Your task to perform on an android device: Go to Reddit.com Image 0: 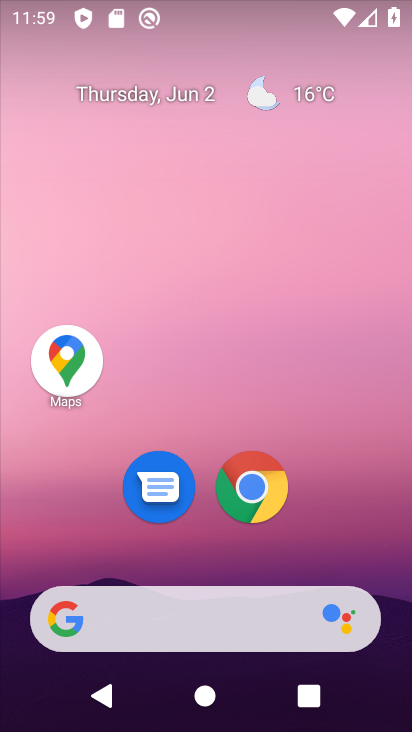
Step 0: press home button
Your task to perform on an android device: Go to Reddit.com Image 1: 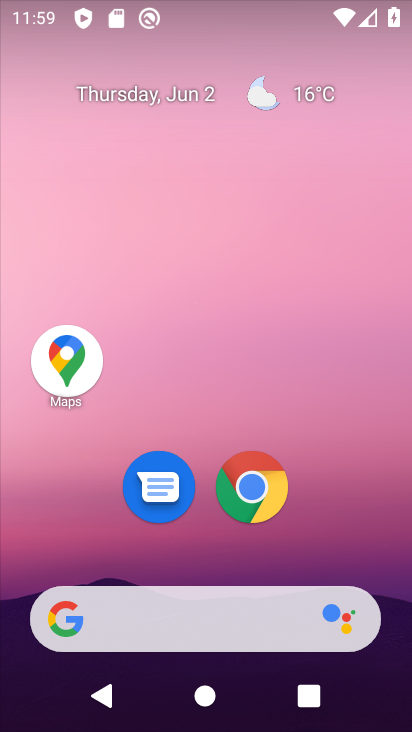
Step 1: click (117, 618)
Your task to perform on an android device: Go to Reddit.com Image 2: 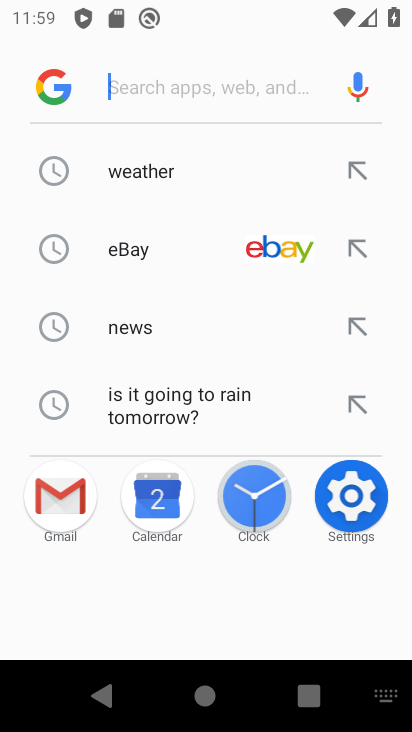
Step 2: type "Reddit.com"
Your task to perform on an android device: Go to Reddit.com Image 3: 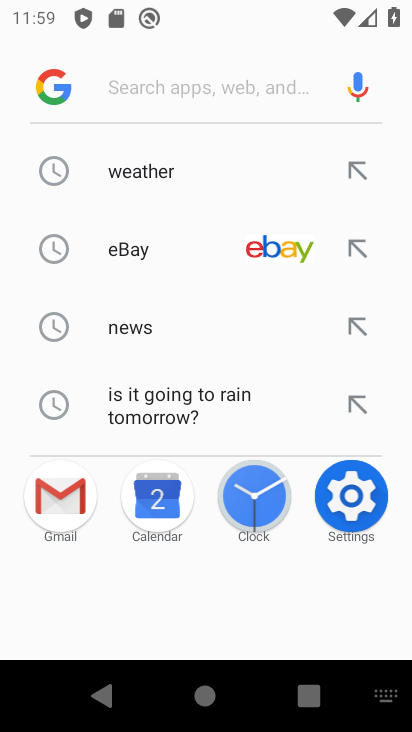
Step 3: click (162, 95)
Your task to perform on an android device: Go to Reddit.com Image 4: 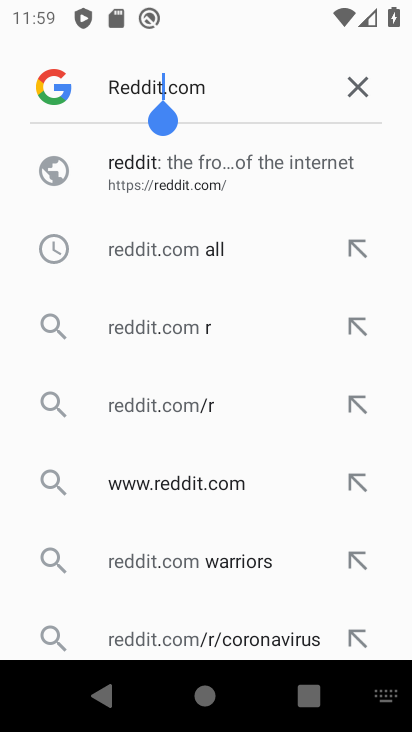
Step 4: click (221, 166)
Your task to perform on an android device: Go to Reddit.com Image 5: 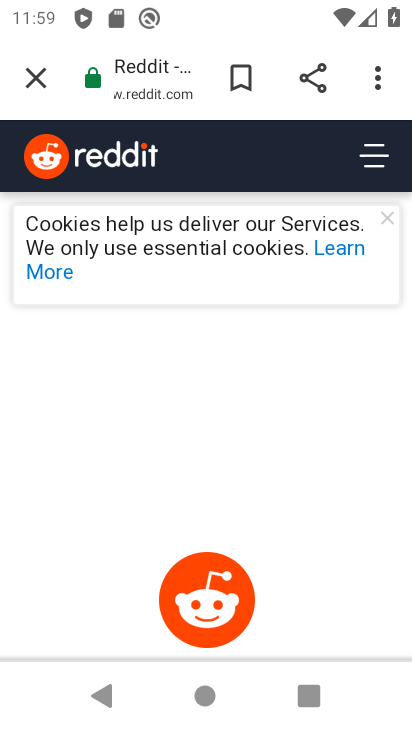
Step 5: task complete